Your task to perform on an android device: Open the Play Movies app and select the watchlist tab. Image 0: 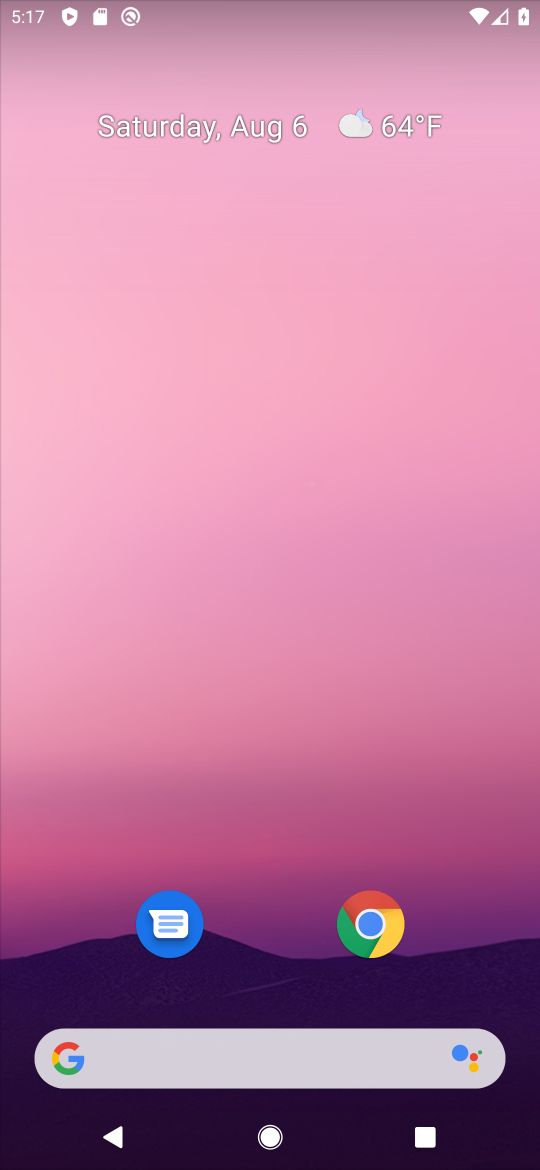
Step 0: drag from (250, 838) to (298, 25)
Your task to perform on an android device: Open the Play Movies app and select the watchlist tab. Image 1: 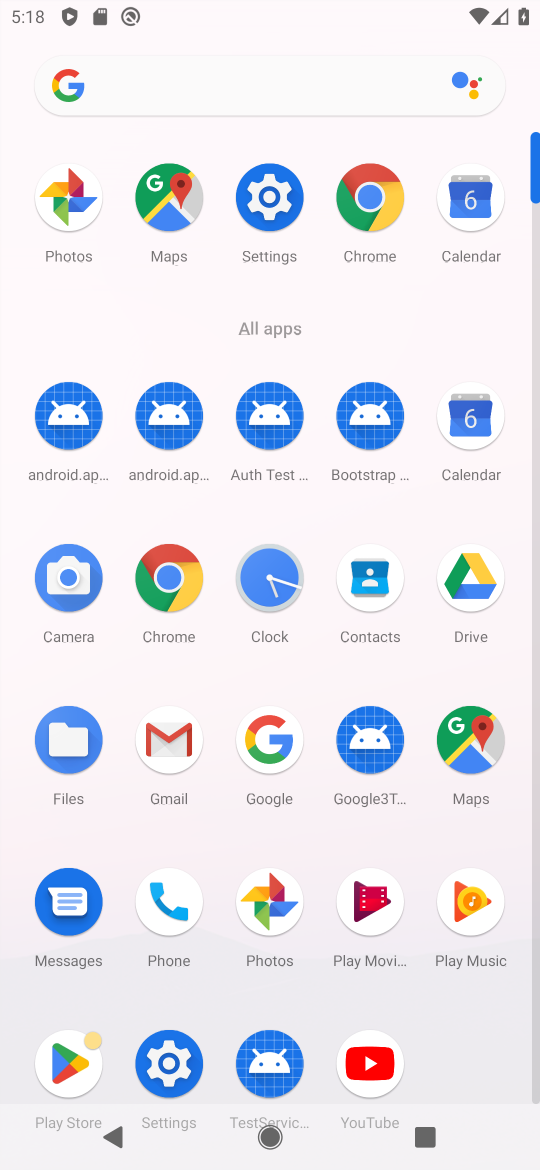
Step 1: click (370, 905)
Your task to perform on an android device: Open the Play Movies app and select the watchlist tab. Image 2: 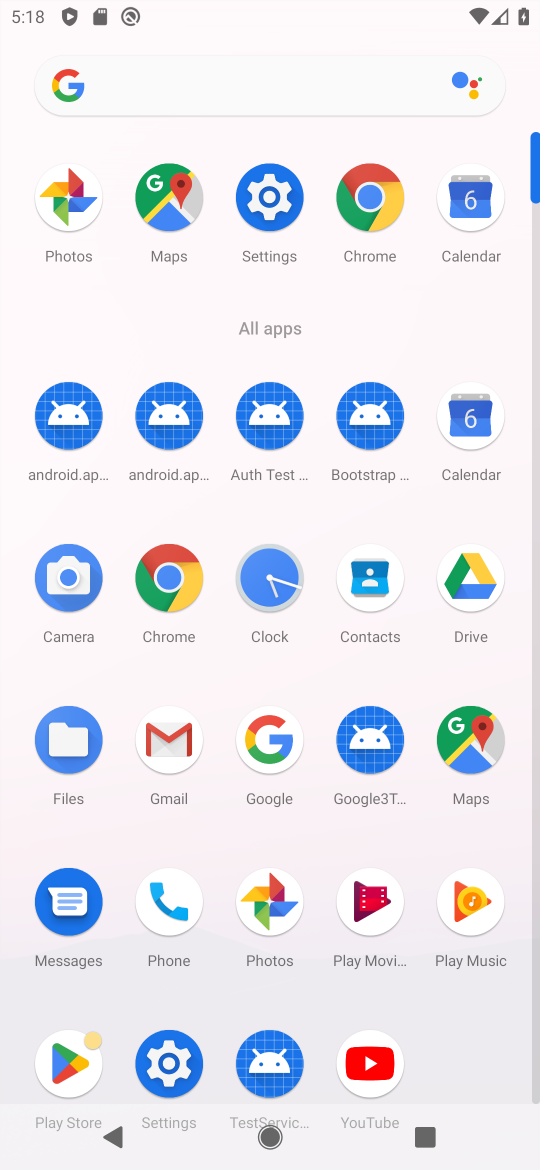
Step 2: click (360, 891)
Your task to perform on an android device: Open the Play Movies app and select the watchlist tab. Image 3: 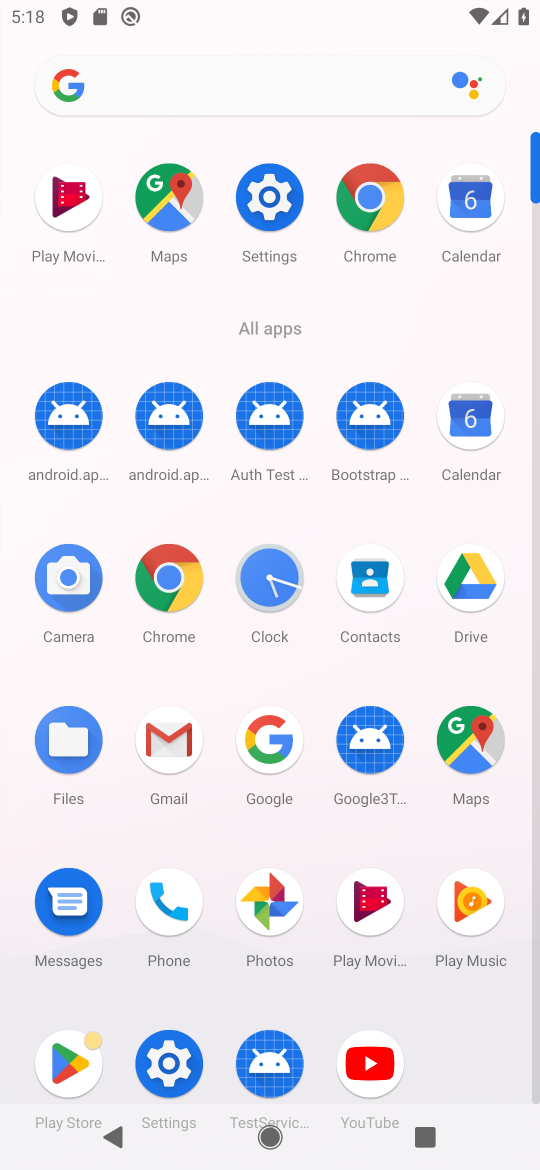
Step 3: task complete